Your task to perform on an android device: Is it going to rain tomorrow? Image 0: 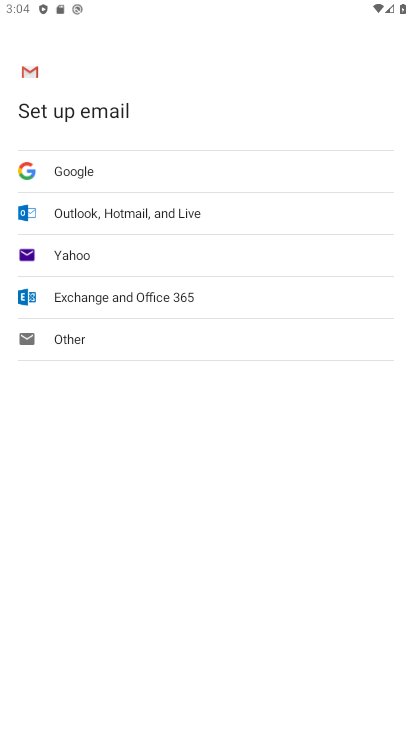
Step 0: press home button
Your task to perform on an android device: Is it going to rain tomorrow? Image 1: 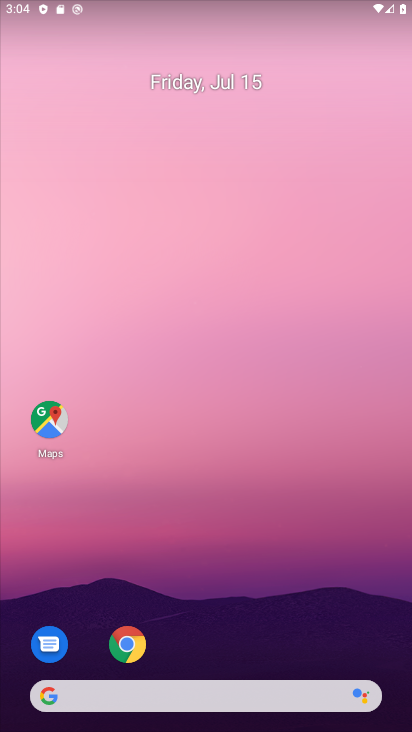
Step 1: drag from (270, 684) to (270, 28)
Your task to perform on an android device: Is it going to rain tomorrow? Image 2: 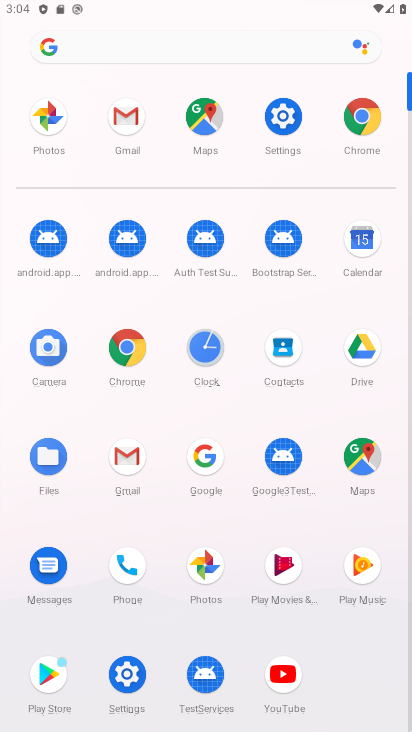
Step 2: click (126, 351)
Your task to perform on an android device: Is it going to rain tomorrow? Image 3: 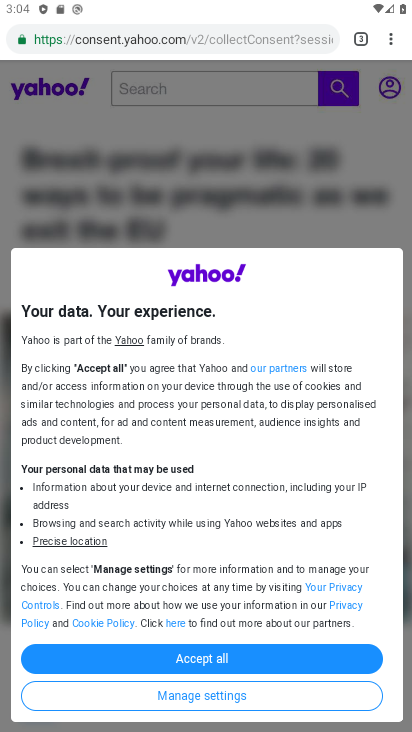
Step 3: click (269, 41)
Your task to perform on an android device: Is it going to rain tomorrow? Image 4: 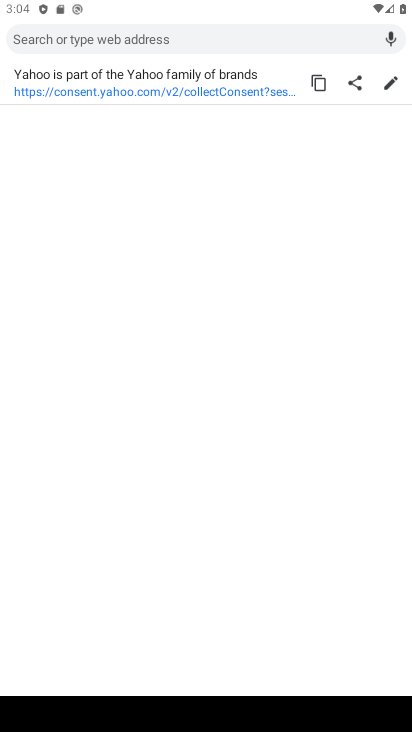
Step 4: type "going to be rain tomorrow"
Your task to perform on an android device: Is it going to rain tomorrow? Image 5: 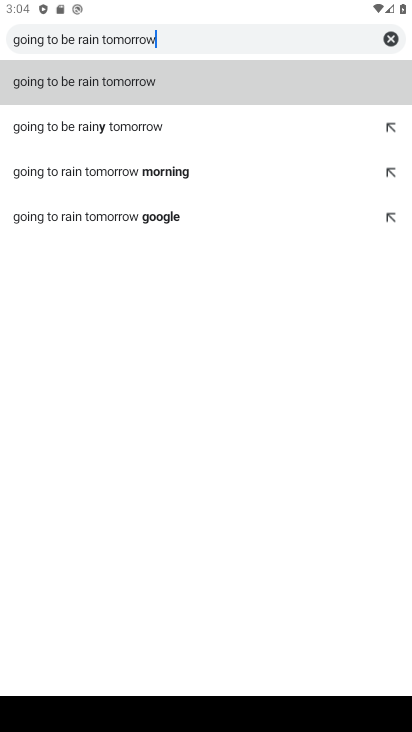
Step 5: click (105, 80)
Your task to perform on an android device: Is it going to rain tomorrow? Image 6: 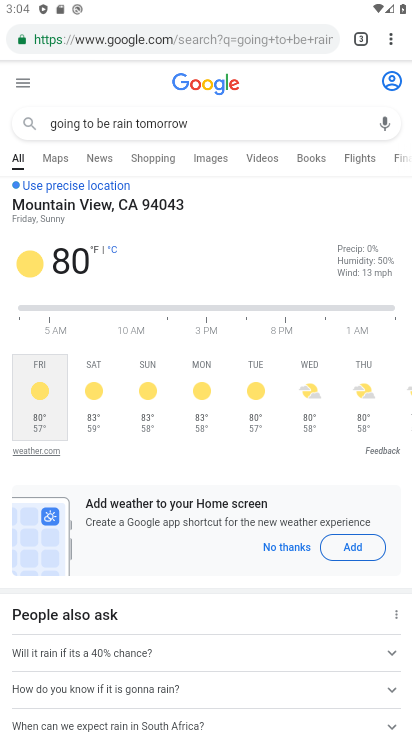
Step 6: task complete